Your task to perform on an android device: open app "DoorDash - Food Delivery" (install if not already installed) Image 0: 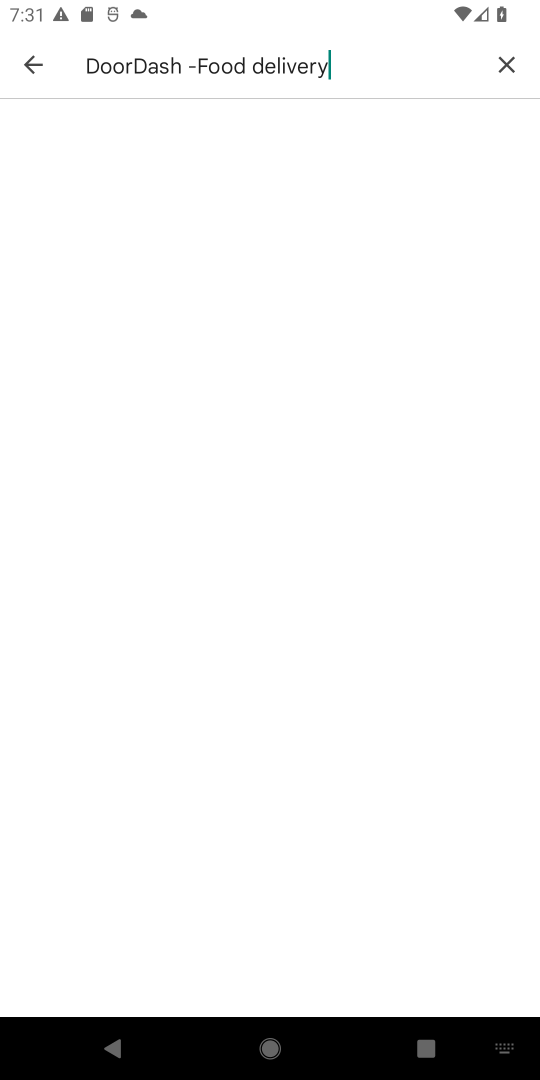
Step 0: press home button
Your task to perform on an android device: open app "DoorDash - Food Delivery" (install if not already installed) Image 1: 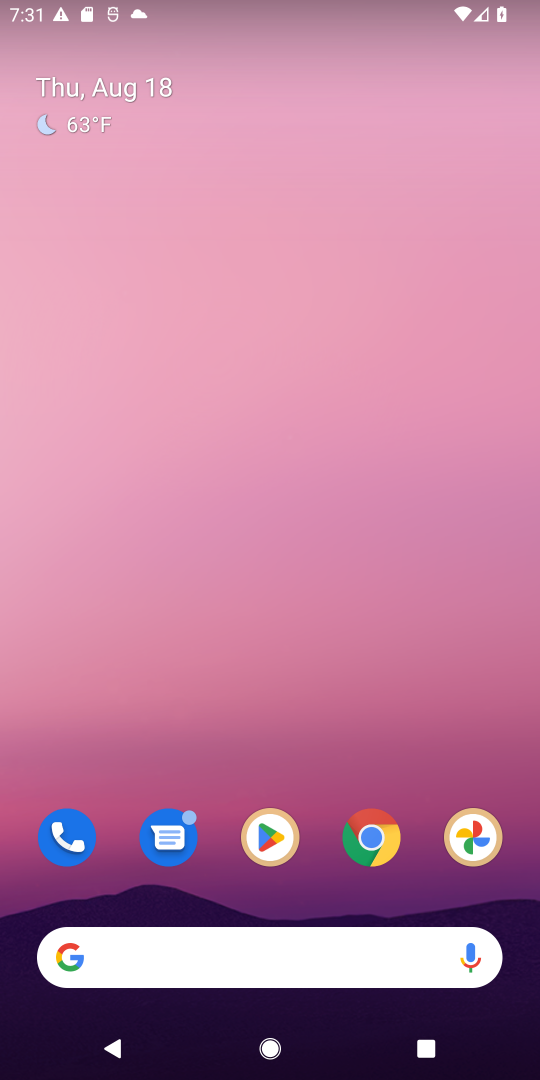
Step 1: drag from (228, 897) to (200, 307)
Your task to perform on an android device: open app "DoorDash - Food Delivery" (install if not already installed) Image 2: 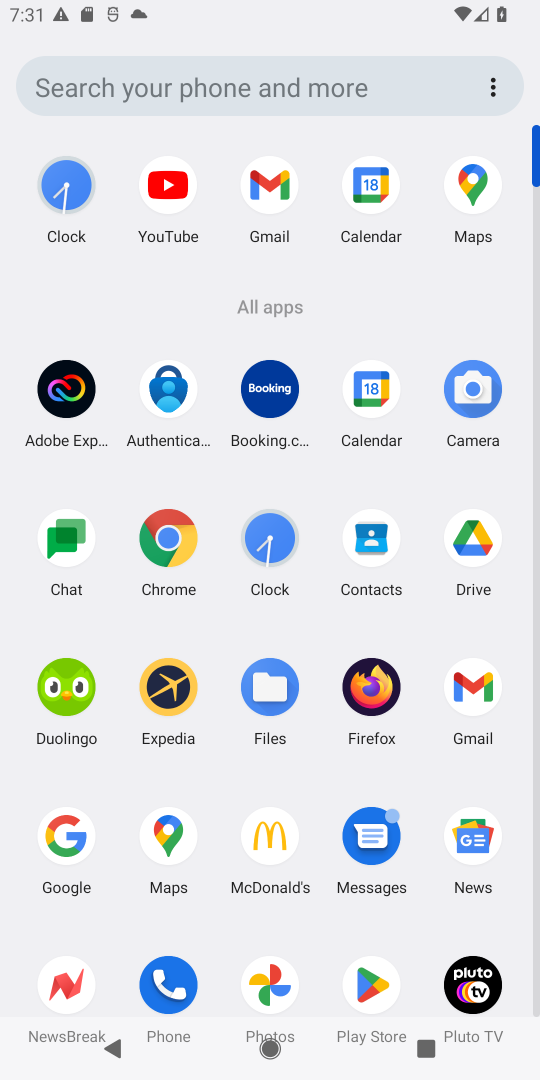
Step 2: click (371, 982)
Your task to perform on an android device: open app "DoorDash - Food Delivery" (install if not already installed) Image 3: 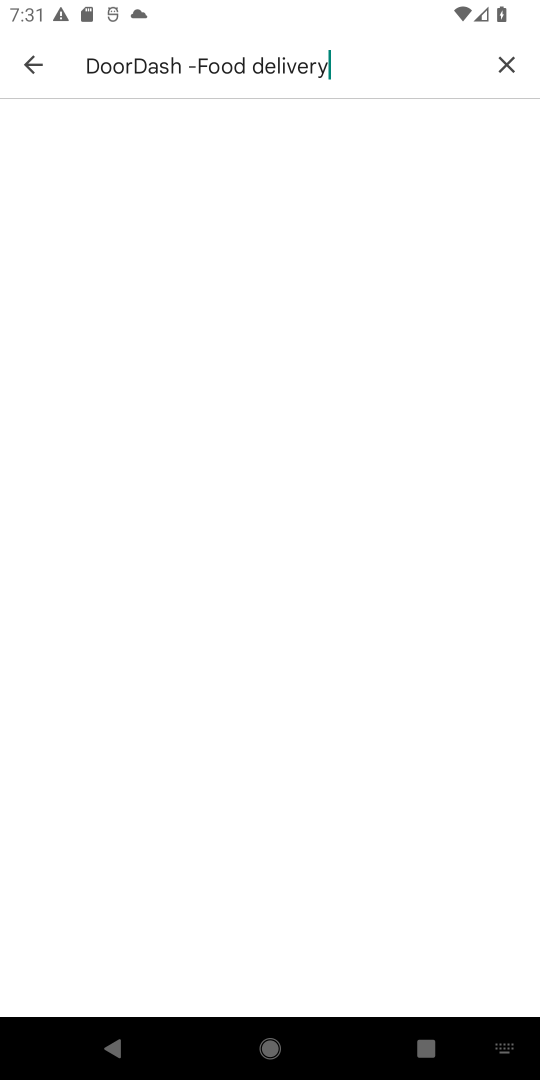
Step 3: click (376, 52)
Your task to perform on an android device: open app "DoorDash - Food Delivery" (install if not already installed) Image 4: 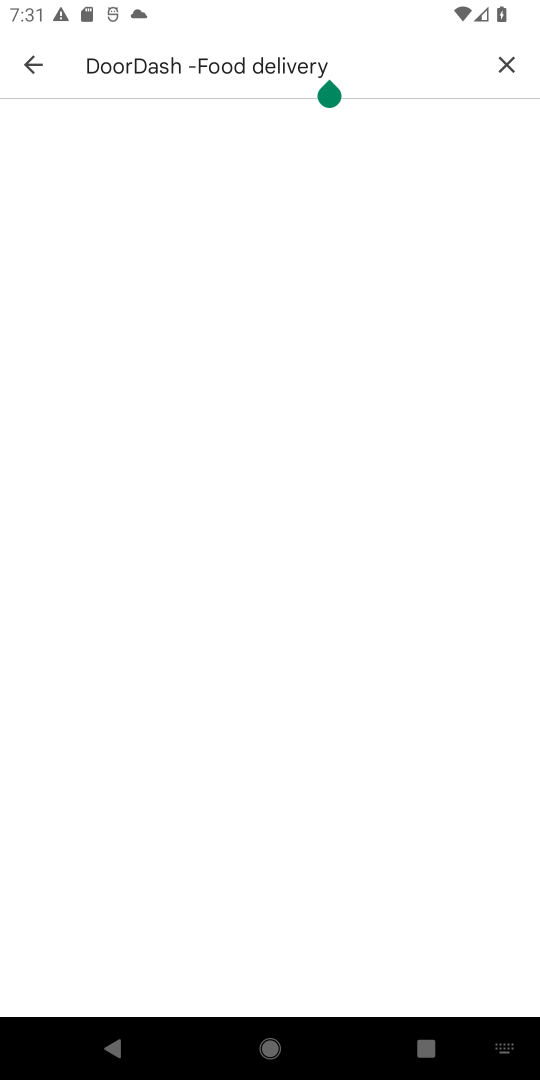
Step 4: task complete